Your task to perform on an android device: turn notification dots off Image 0: 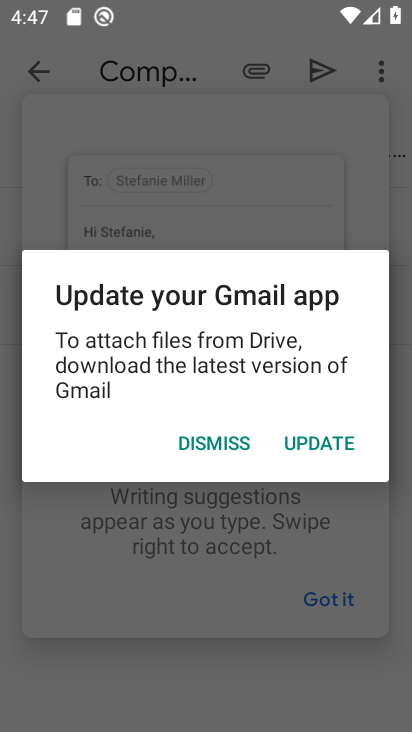
Step 0: press home button
Your task to perform on an android device: turn notification dots off Image 1: 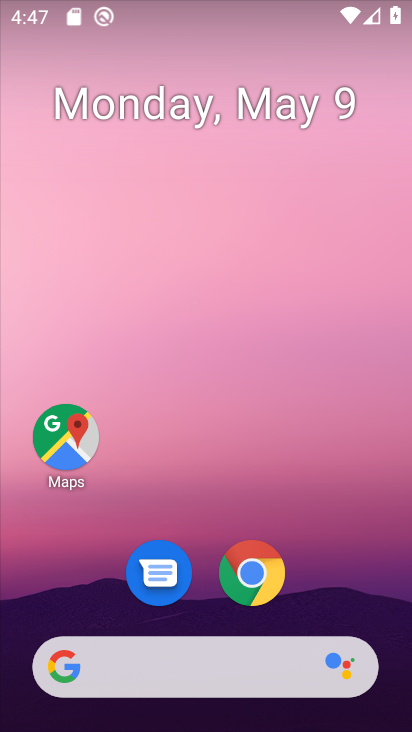
Step 1: drag from (329, 596) to (278, 159)
Your task to perform on an android device: turn notification dots off Image 2: 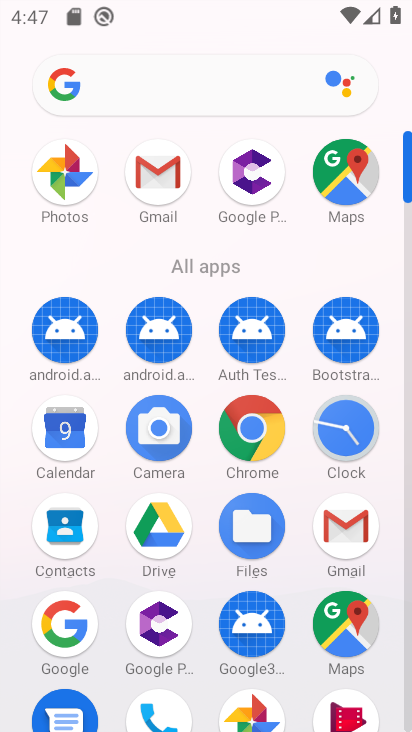
Step 2: click (405, 697)
Your task to perform on an android device: turn notification dots off Image 3: 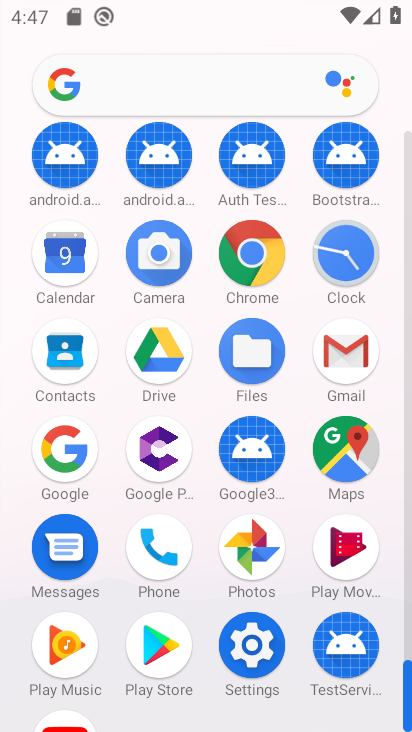
Step 3: click (253, 647)
Your task to perform on an android device: turn notification dots off Image 4: 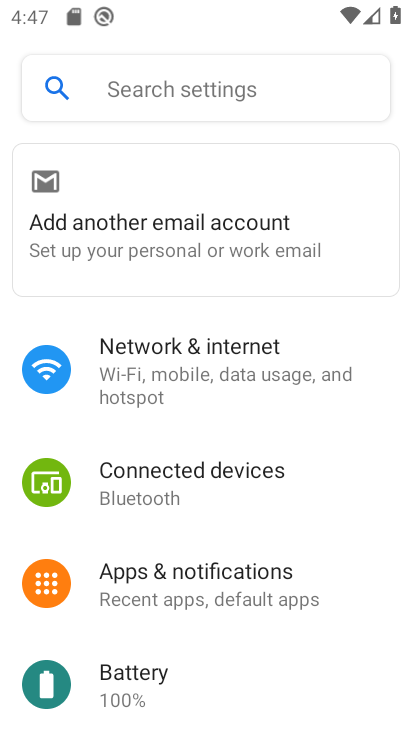
Step 4: click (186, 586)
Your task to perform on an android device: turn notification dots off Image 5: 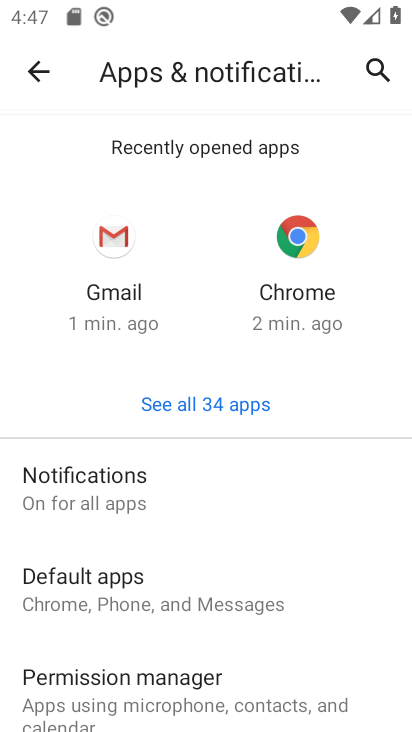
Step 5: click (76, 482)
Your task to perform on an android device: turn notification dots off Image 6: 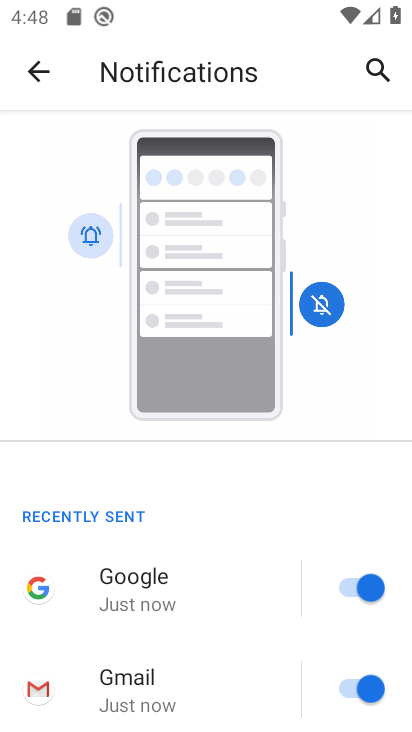
Step 6: drag from (224, 648) to (242, 245)
Your task to perform on an android device: turn notification dots off Image 7: 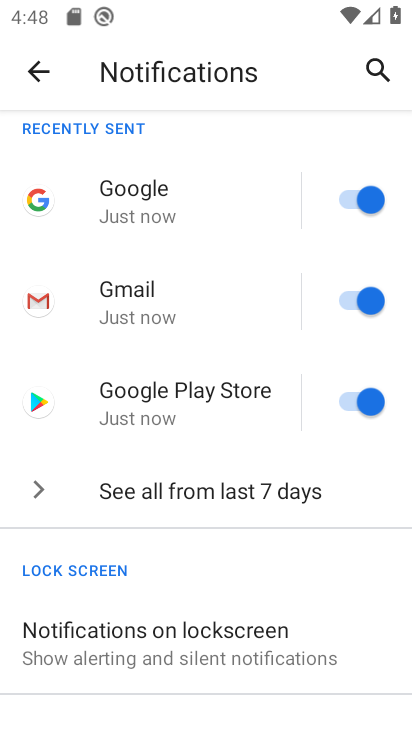
Step 7: drag from (257, 630) to (202, 270)
Your task to perform on an android device: turn notification dots off Image 8: 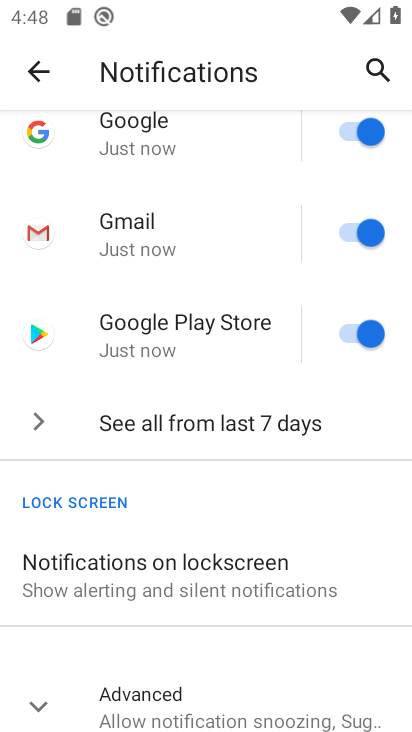
Step 8: click (46, 689)
Your task to perform on an android device: turn notification dots off Image 9: 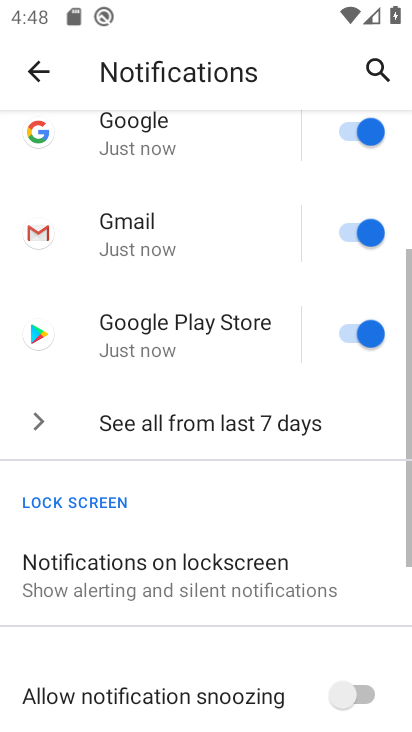
Step 9: drag from (212, 650) to (251, 213)
Your task to perform on an android device: turn notification dots off Image 10: 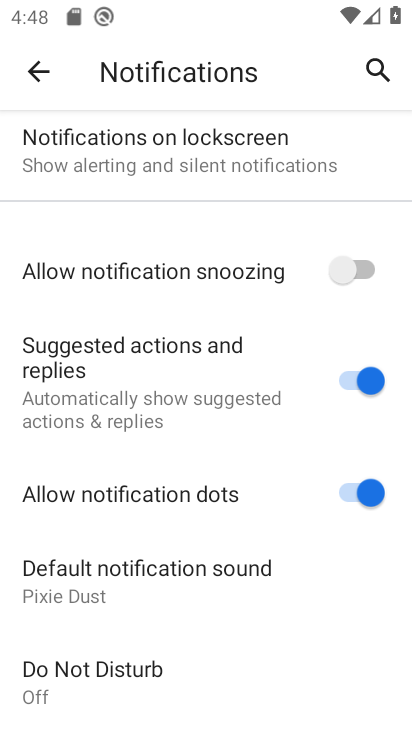
Step 10: click (345, 489)
Your task to perform on an android device: turn notification dots off Image 11: 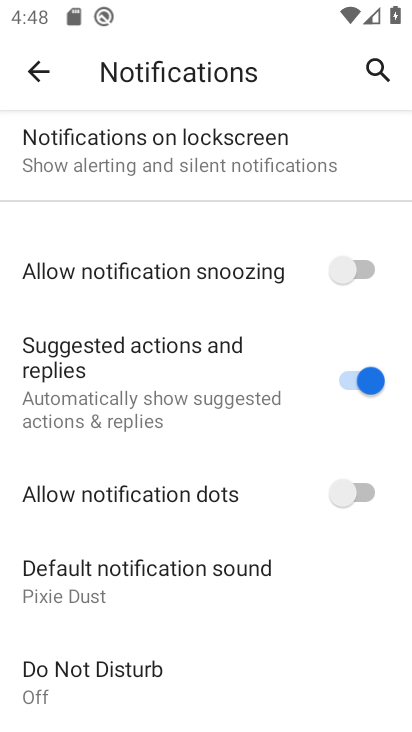
Step 11: task complete